Your task to perform on an android device: add a contact Image 0: 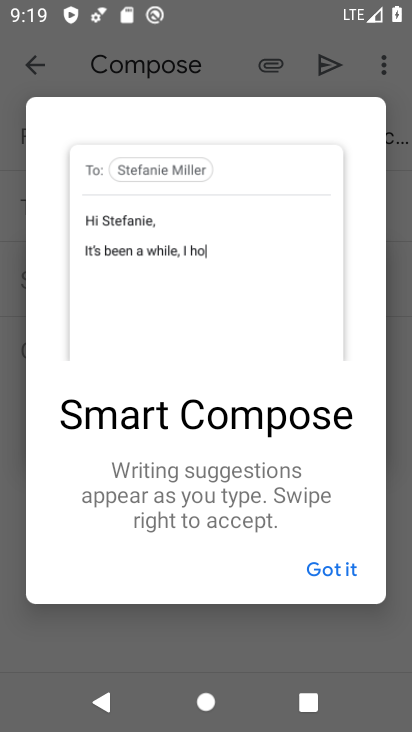
Step 0: press home button
Your task to perform on an android device: add a contact Image 1: 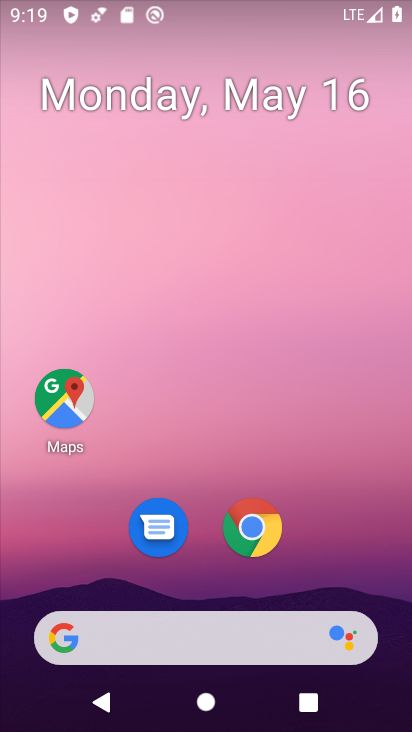
Step 1: drag from (379, 602) to (357, 13)
Your task to perform on an android device: add a contact Image 2: 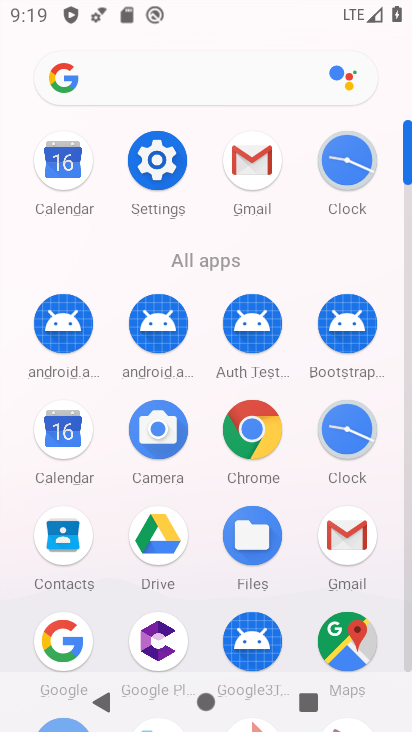
Step 2: click (63, 549)
Your task to perform on an android device: add a contact Image 3: 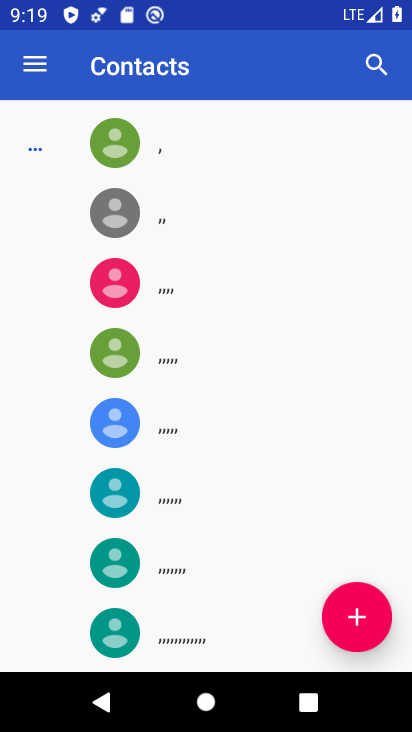
Step 3: click (349, 628)
Your task to perform on an android device: add a contact Image 4: 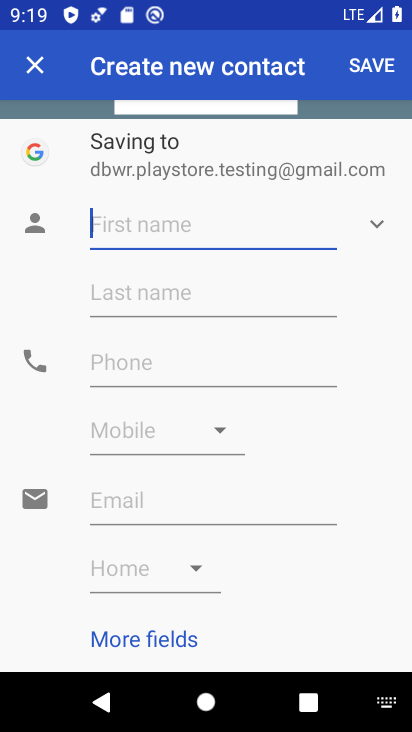
Step 4: click (131, 235)
Your task to perform on an android device: add a contact Image 5: 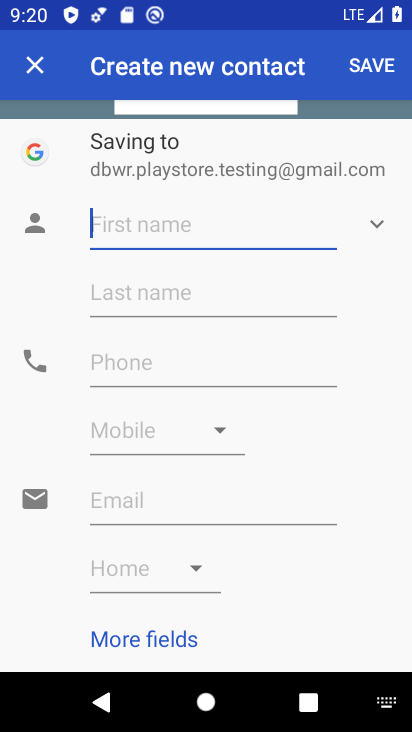
Step 5: type "nancy"
Your task to perform on an android device: add a contact Image 6: 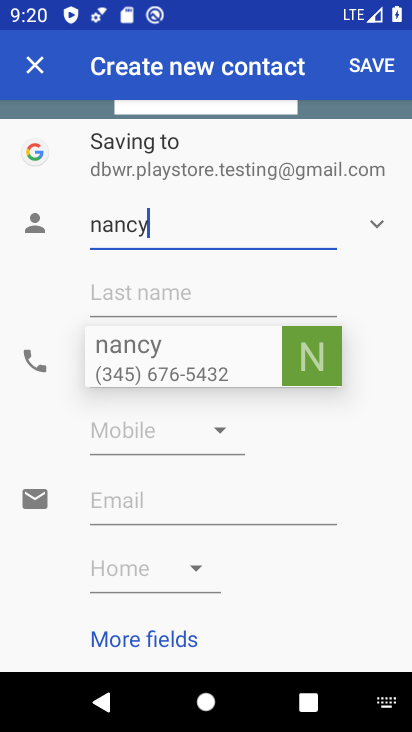
Step 6: click (354, 365)
Your task to perform on an android device: add a contact Image 7: 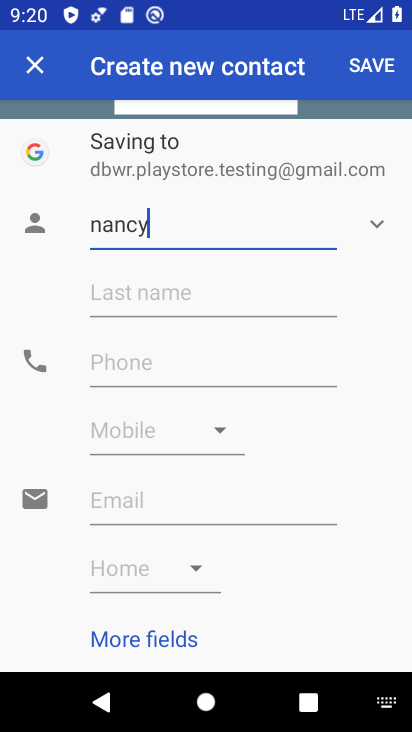
Step 7: click (99, 375)
Your task to perform on an android device: add a contact Image 8: 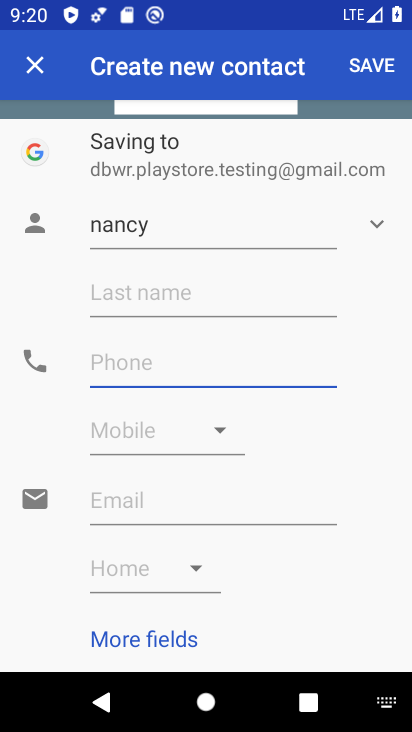
Step 8: type "766554566"
Your task to perform on an android device: add a contact Image 9: 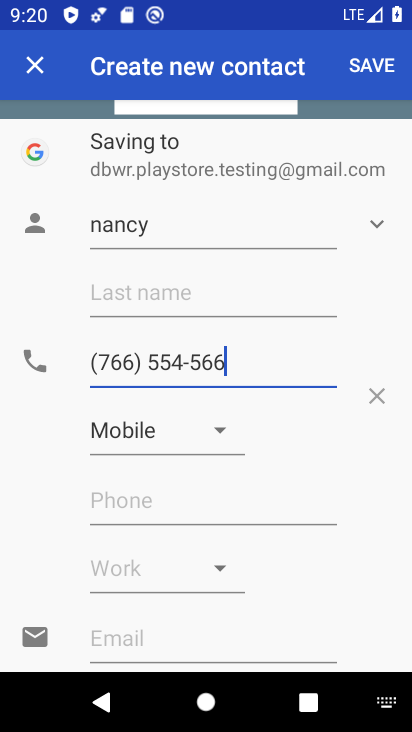
Step 9: click (357, 71)
Your task to perform on an android device: add a contact Image 10: 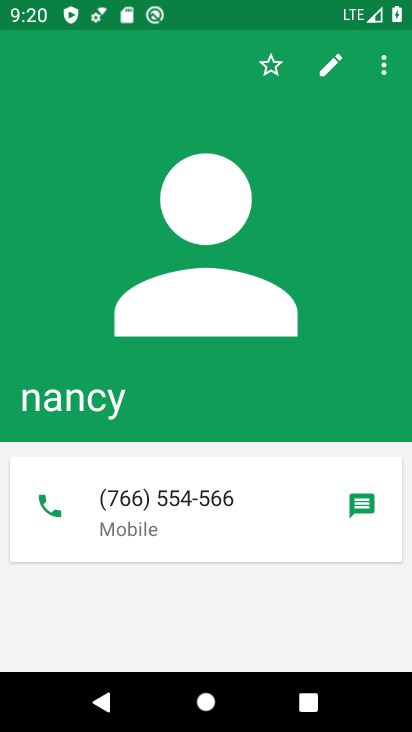
Step 10: task complete